Your task to perform on an android device: turn on improve location accuracy Image 0: 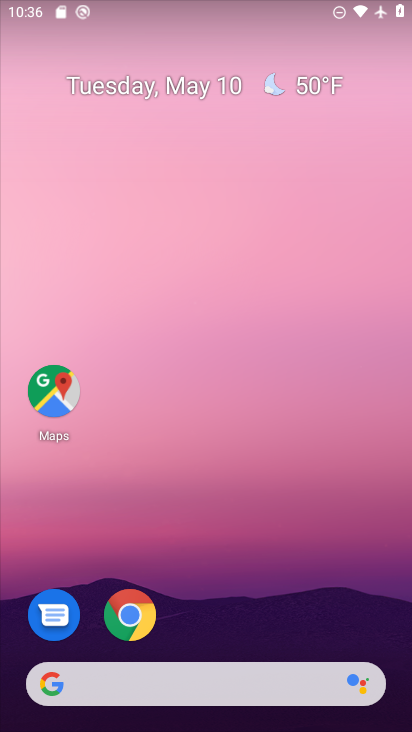
Step 0: drag from (370, 634) to (301, 103)
Your task to perform on an android device: turn on improve location accuracy Image 1: 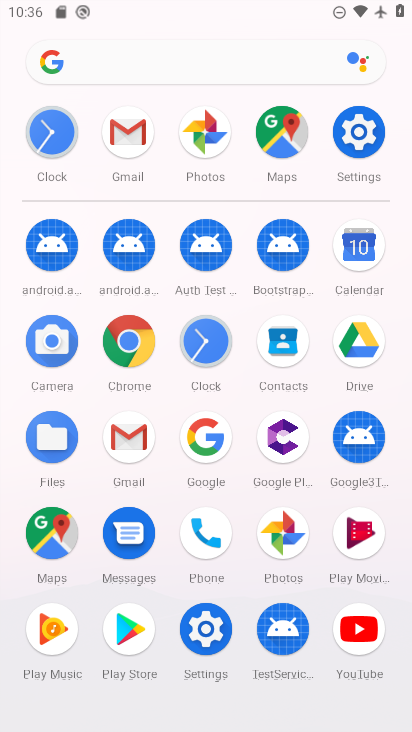
Step 1: click (204, 631)
Your task to perform on an android device: turn on improve location accuracy Image 2: 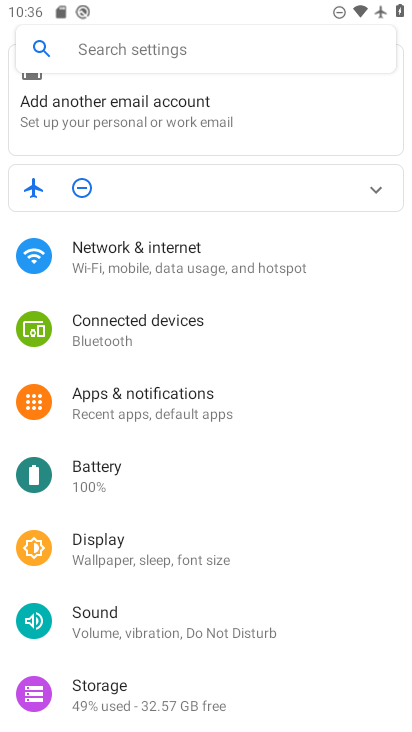
Step 2: drag from (275, 662) to (314, 249)
Your task to perform on an android device: turn on improve location accuracy Image 3: 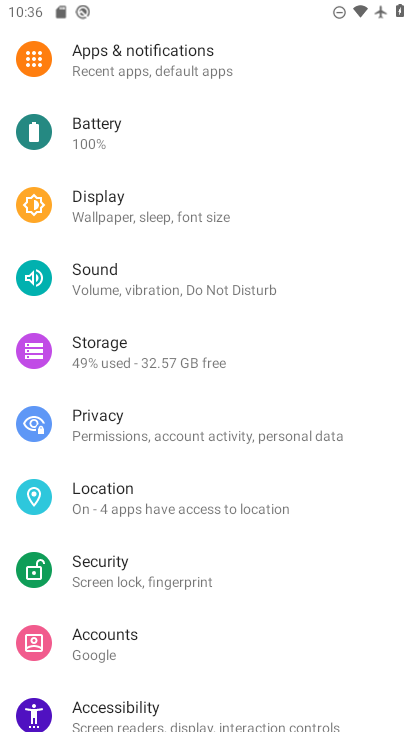
Step 3: click (105, 488)
Your task to perform on an android device: turn on improve location accuracy Image 4: 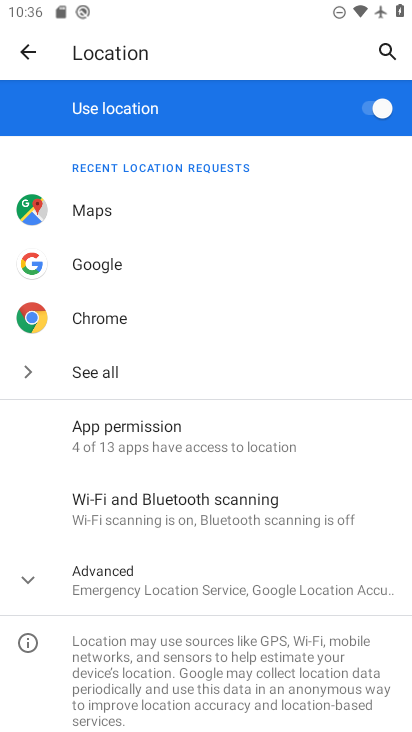
Step 4: click (33, 567)
Your task to perform on an android device: turn on improve location accuracy Image 5: 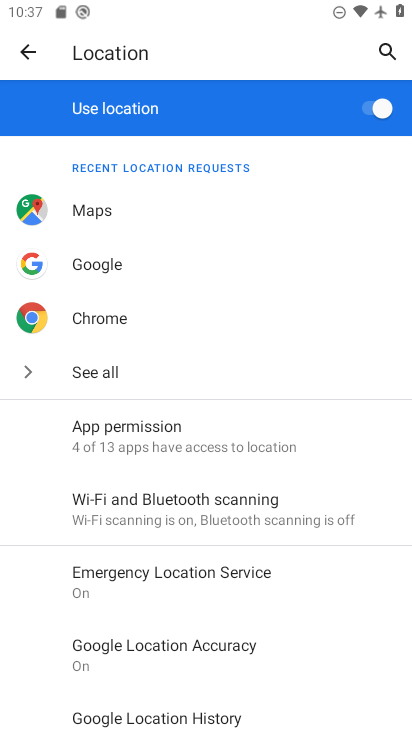
Step 5: drag from (202, 658) to (222, 356)
Your task to perform on an android device: turn on improve location accuracy Image 6: 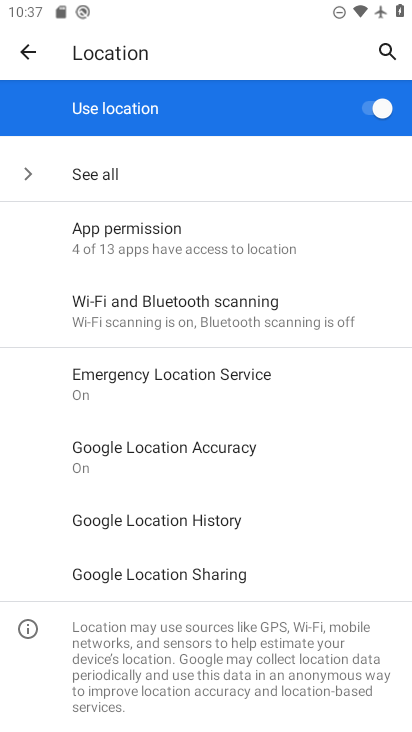
Step 6: click (140, 446)
Your task to perform on an android device: turn on improve location accuracy Image 7: 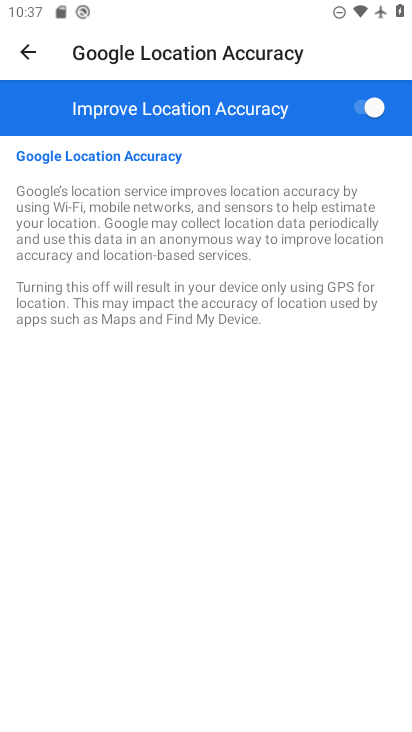
Step 7: task complete